Your task to perform on an android device: toggle sleep mode Image 0: 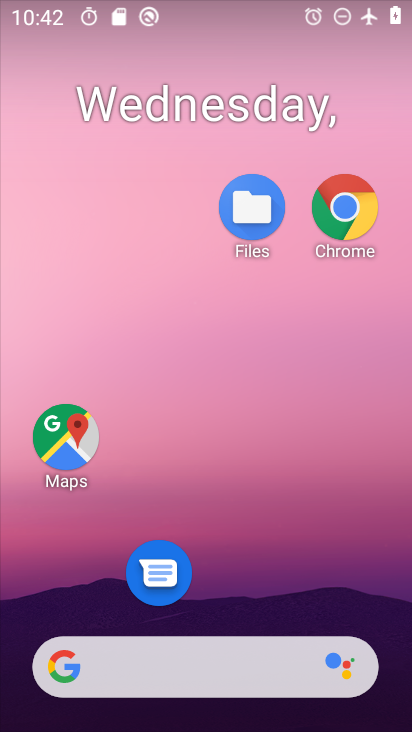
Step 0: drag from (240, 652) to (383, 38)
Your task to perform on an android device: toggle sleep mode Image 1: 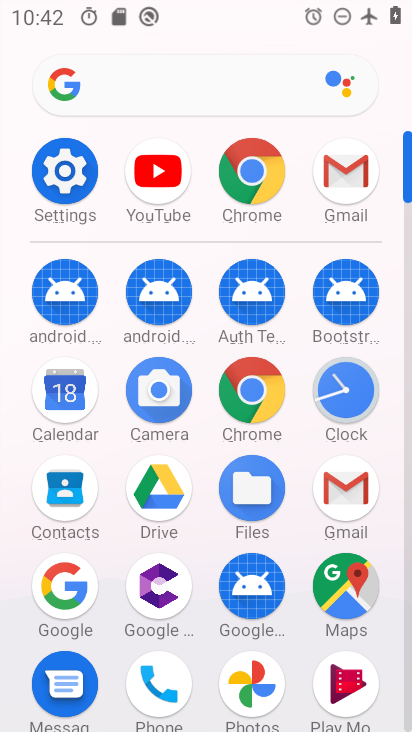
Step 1: click (78, 175)
Your task to perform on an android device: toggle sleep mode Image 2: 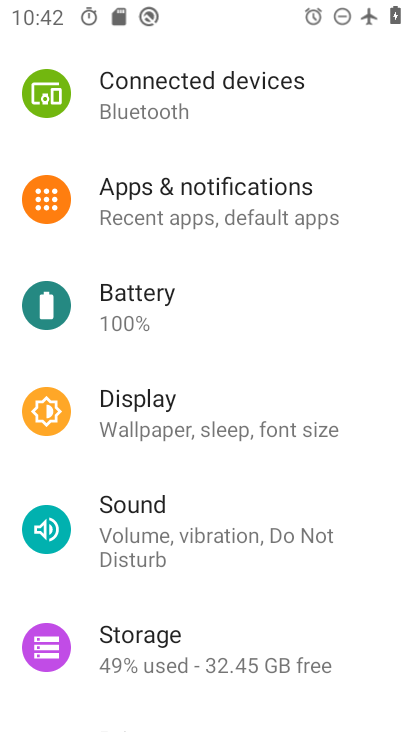
Step 2: click (183, 550)
Your task to perform on an android device: toggle sleep mode Image 3: 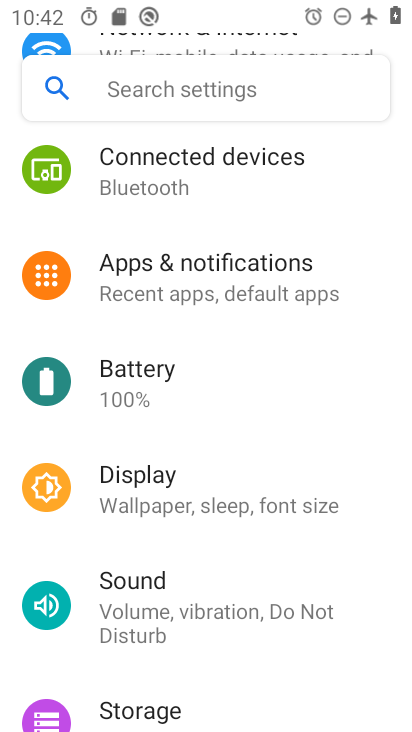
Step 3: click (221, 491)
Your task to perform on an android device: toggle sleep mode Image 4: 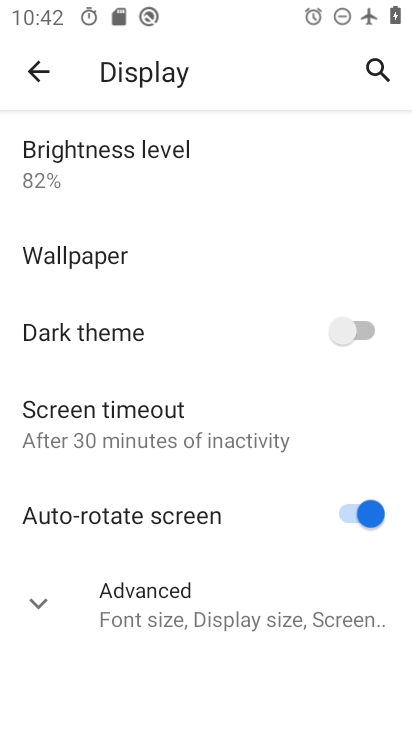
Step 4: click (194, 611)
Your task to perform on an android device: toggle sleep mode Image 5: 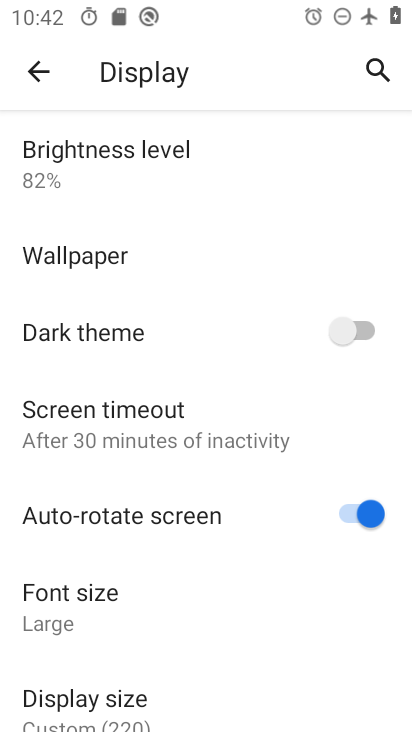
Step 5: task complete